Your task to perform on an android device: empty trash in the gmail app Image 0: 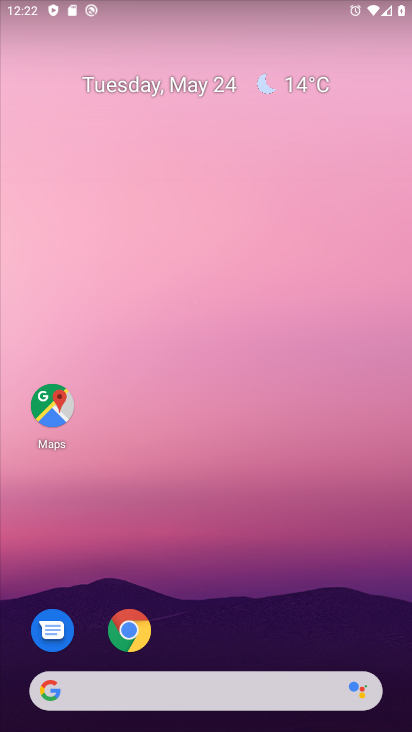
Step 0: drag from (316, 628) to (382, 135)
Your task to perform on an android device: empty trash in the gmail app Image 1: 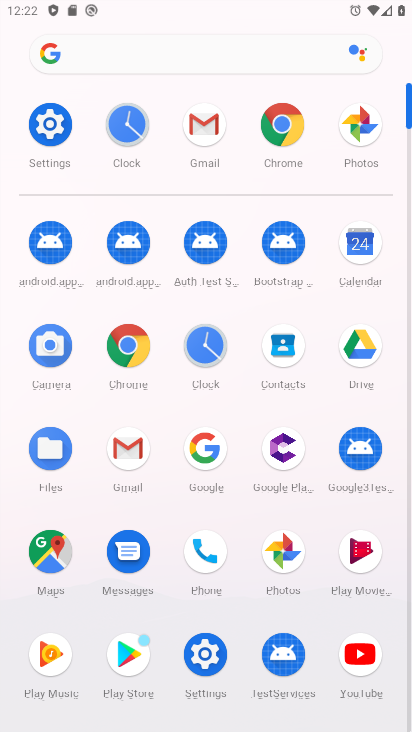
Step 1: click (190, 115)
Your task to perform on an android device: empty trash in the gmail app Image 2: 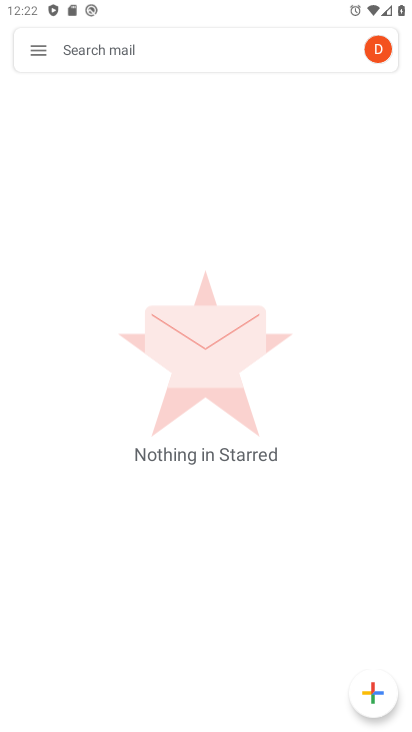
Step 2: click (33, 58)
Your task to perform on an android device: empty trash in the gmail app Image 3: 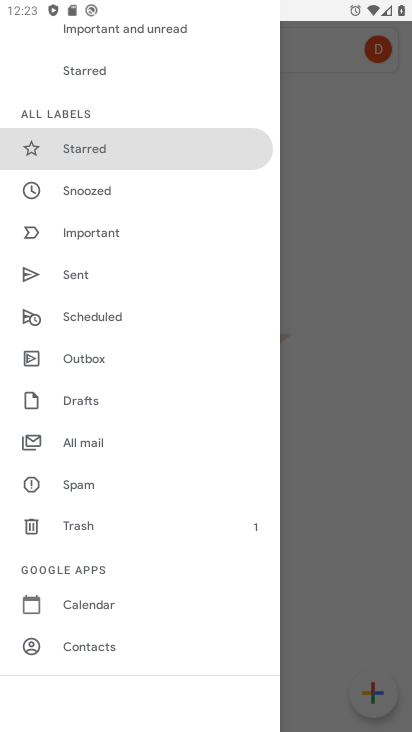
Step 3: click (105, 525)
Your task to perform on an android device: empty trash in the gmail app Image 4: 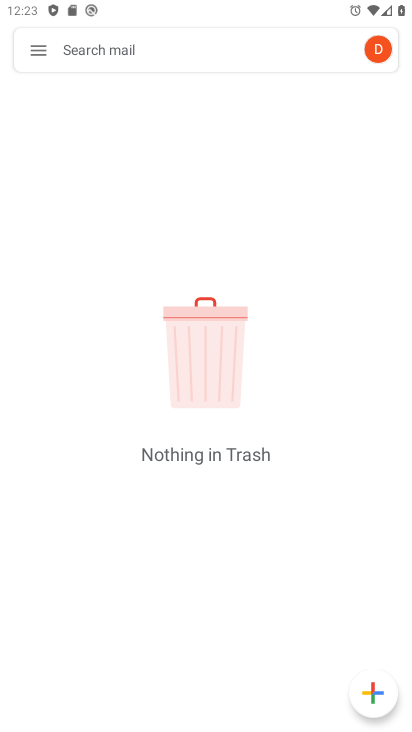
Step 4: task complete